Your task to perform on an android device: empty trash in google photos Image 0: 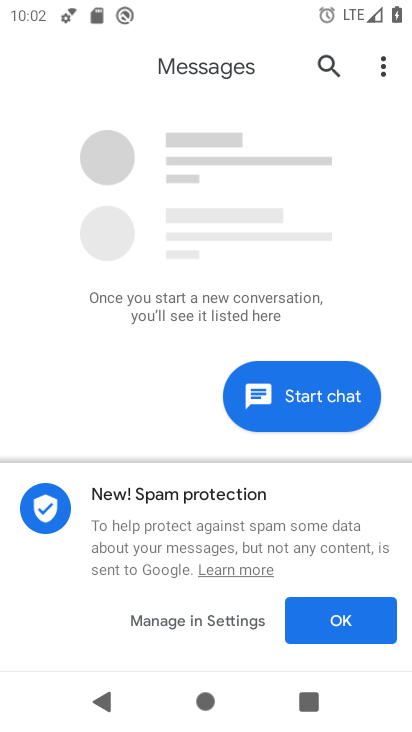
Step 0: press home button
Your task to perform on an android device: empty trash in google photos Image 1: 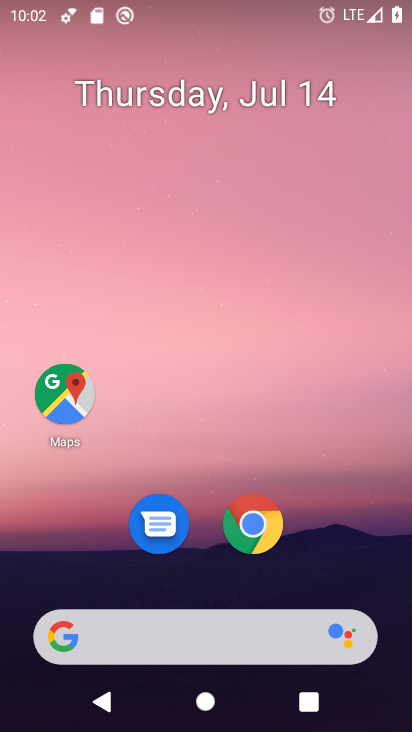
Step 1: drag from (324, 500) to (288, 12)
Your task to perform on an android device: empty trash in google photos Image 2: 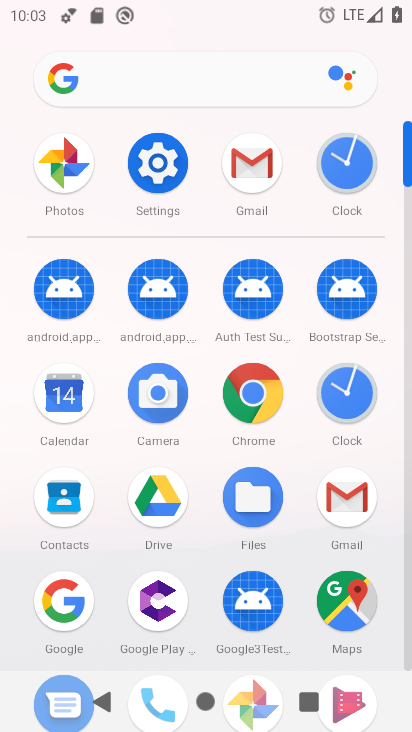
Step 2: click (74, 169)
Your task to perform on an android device: empty trash in google photos Image 3: 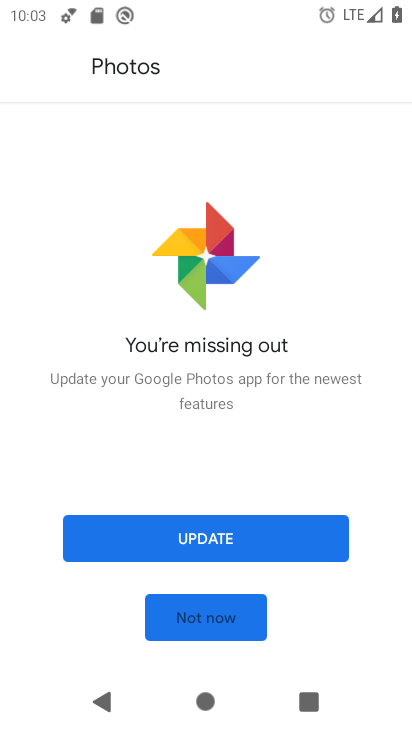
Step 3: click (190, 619)
Your task to perform on an android device: empty trash in google photos Image 4: 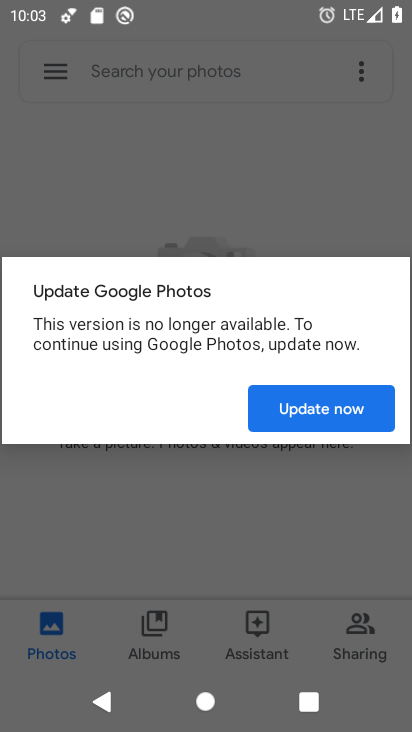
Step 4: click (333, 415)
Your task to perform on an android device: empty trash in google photos Image 5: 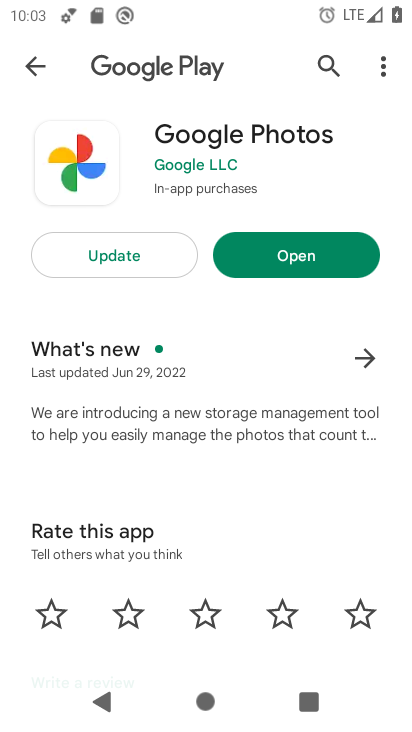
Step 5: click (241, 252)
Your task to perform on an android device: empty trash in google photos Image 6: 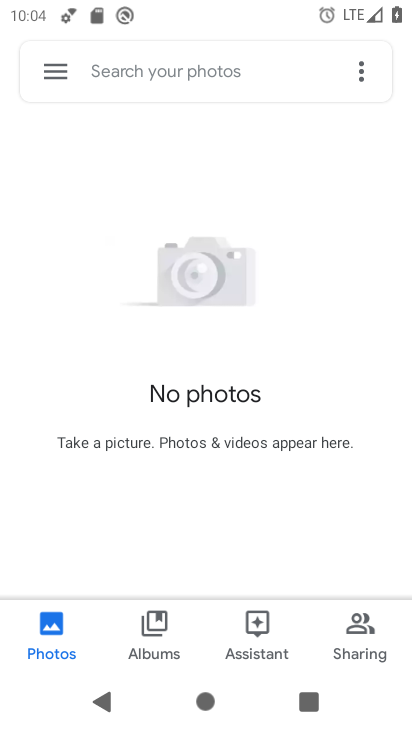
Step 6: click (58, 74)
Your task to perform on an android device: empty trash in google photos Image 7: 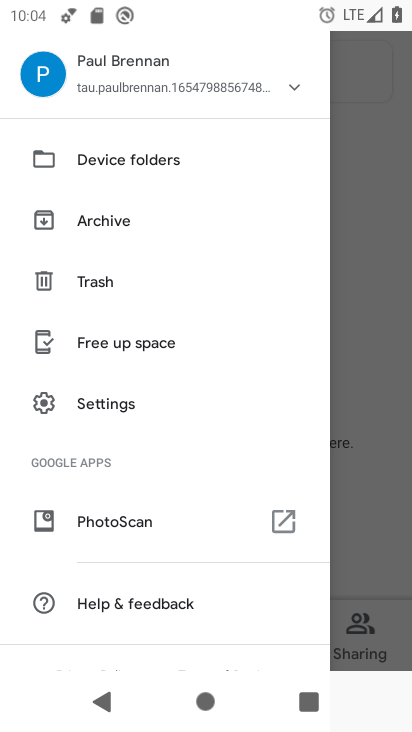
Step 7: click (101, 275)
Your task to perform on an android device: empty trash in google photos Image 8: 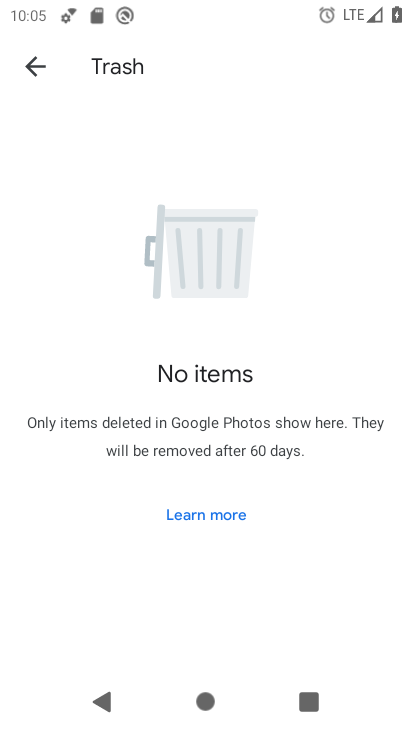
Step 8: task complete